Your task to perform on an android device: turn off location history Image 0: 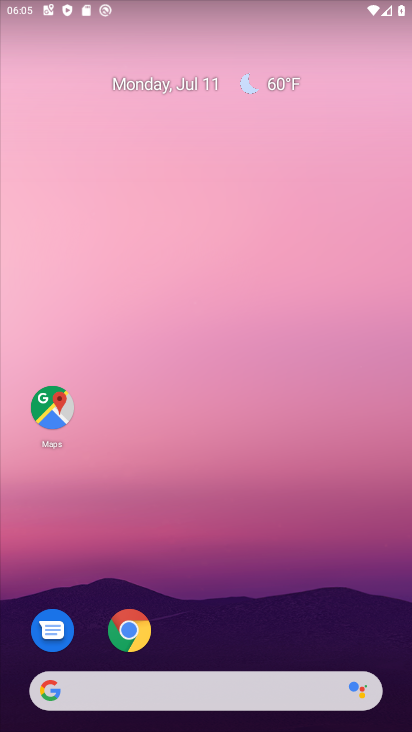
Step 0: drag from (211, 647) to (264, 97)
Your task to perform on an android device: turn off location history Image 1: 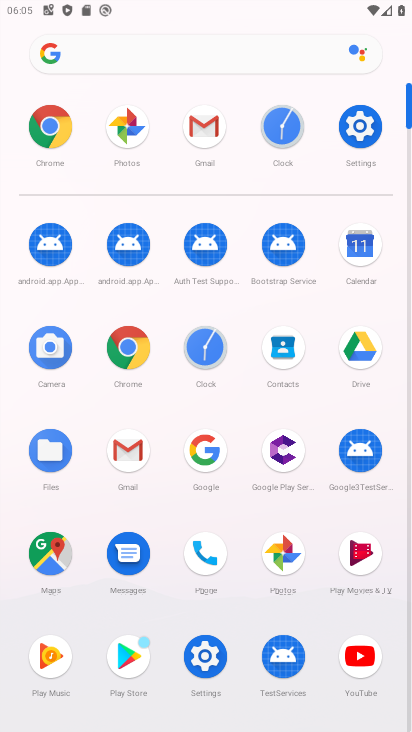
Step 1: click (355, 125)
Your task to perform on an android device: turn off location history Image 2: 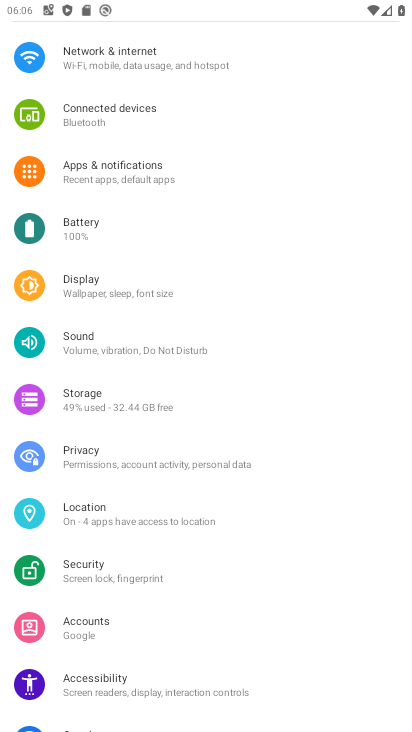
Step 2: click (130, 515)
Your task to perform on an android device: turn off location history Image 3: 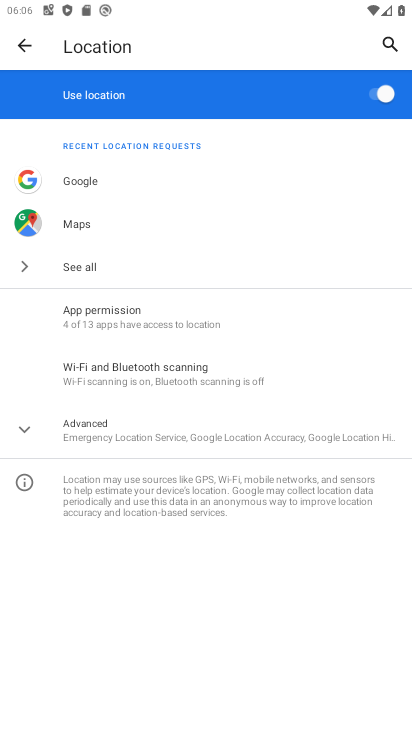
Step 3: click (119, 424)
Your task to perform on an android device: turn off location history Image 4: 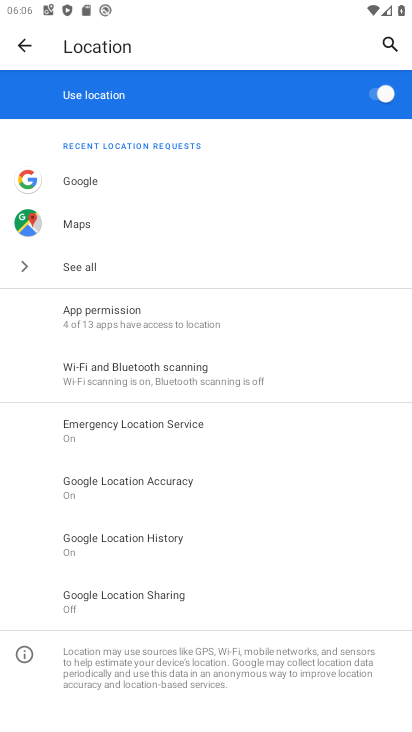
Step 4: click (135, 549)
Your task to perform on an android device: turn off location history Image 5: 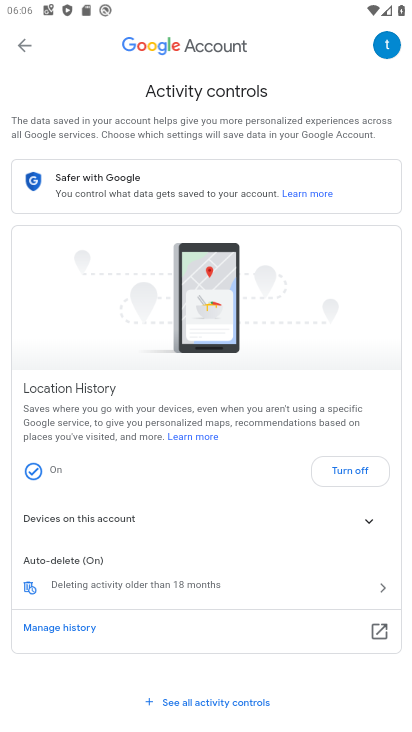
Step 5: click (338, 467)
Your task to perform on an android device: turn off location history Image 6: 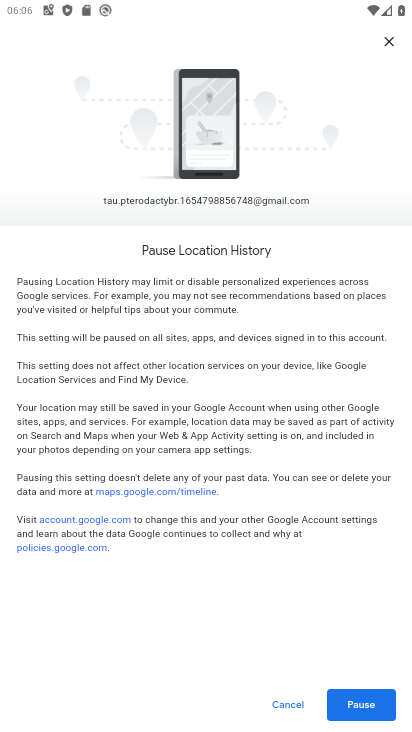
Step 6: click (339, 697)
Your task to perform on an android device: turn off location history Image 7: 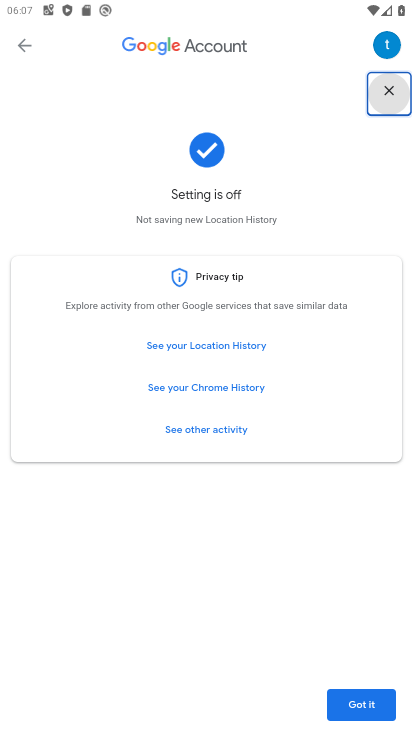
Step 7: click (351, 704)
Your task to perform on an android device: turn off location history Image 8: 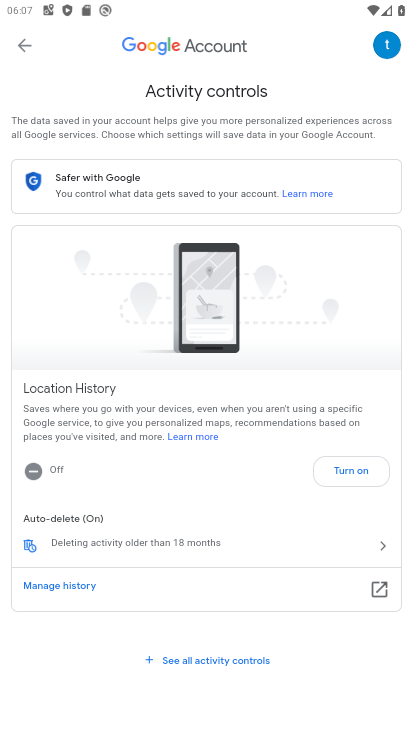
Step 8: task complete